Your task to perform on an android device: find photos in the google photos app Image 0: 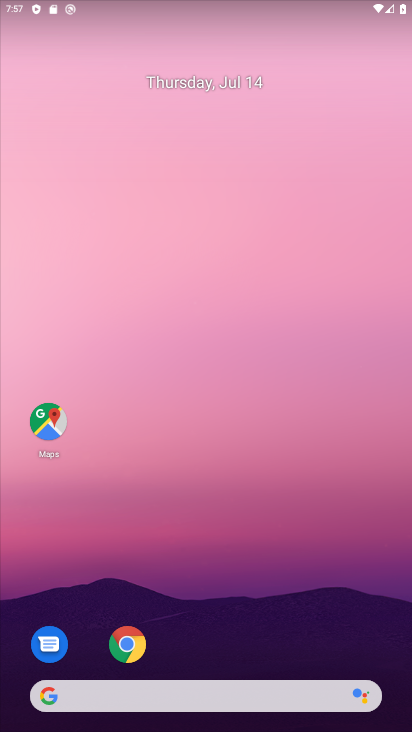
Step 0: click (258, 335)
Your task to perform on an android device: find photos in the google photos app Image 1: 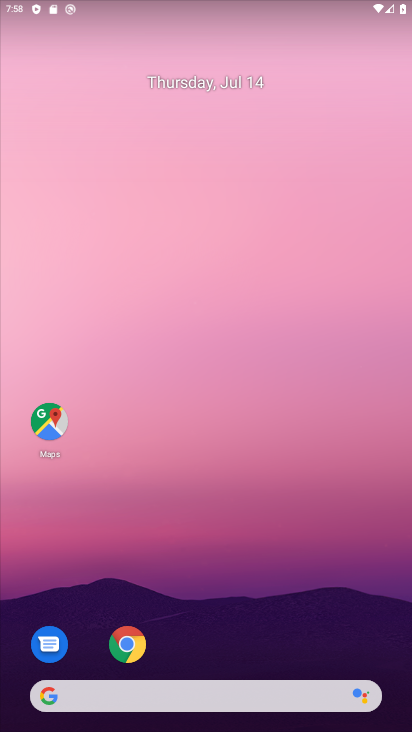
Step 1: drag from (198, 610) to (225, 251)
Your task to perform on an android device: find photos in the google photos app Image 2: 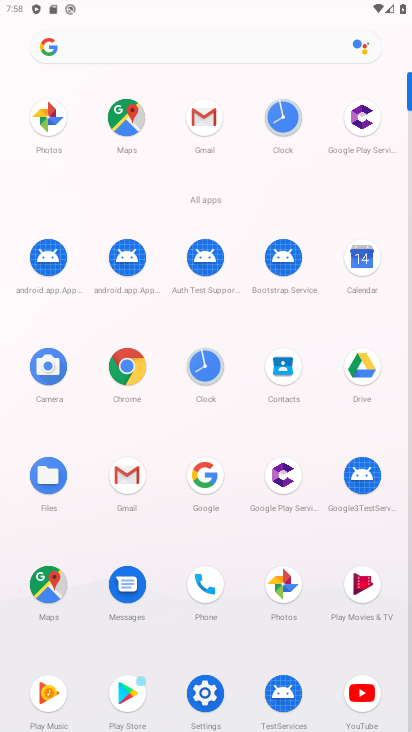
Step 2: click (284, 593)
Your task to perform on an android device: find photos in the google photos app Image 3: 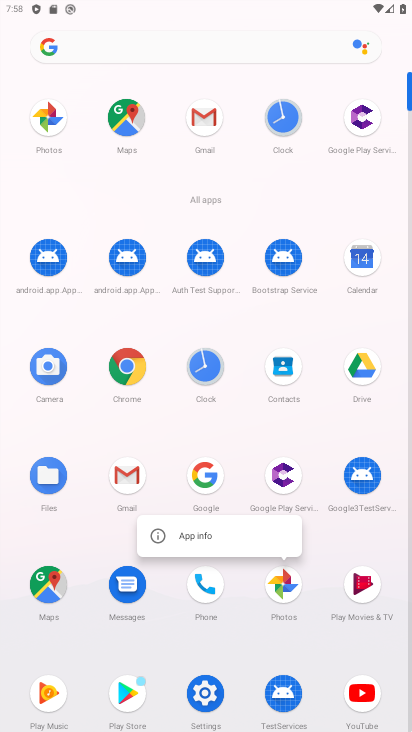
Step 3: click (193, 541)
Your task to perform on an android device: find photos in the google photos app Image 4: 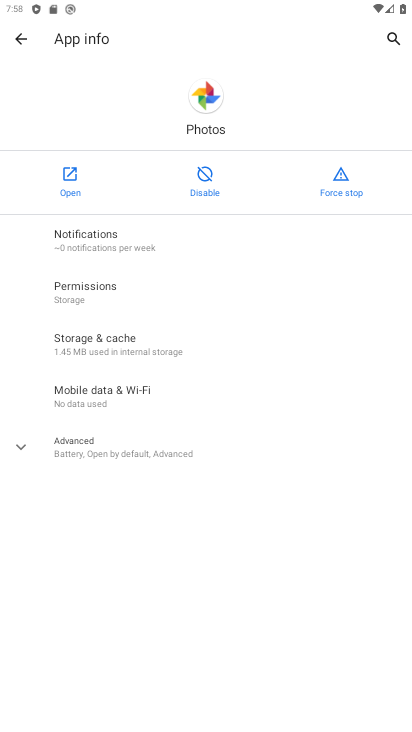
Step 4: click (68, 190)
Your task to perform on an android device: find photos in the google photos app Image 5: 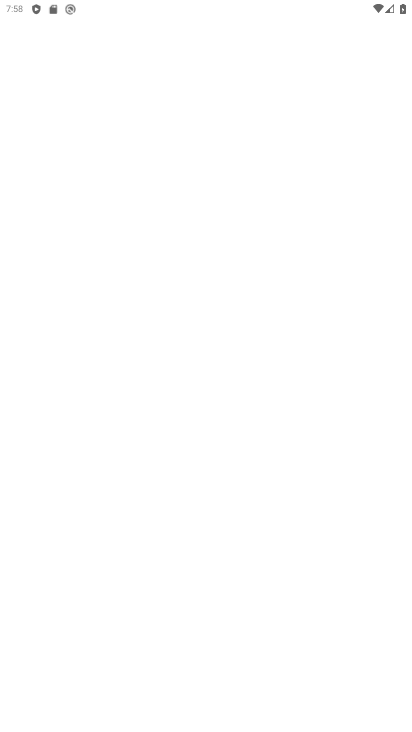
Step 5: drag from (243, 639) to (236, 404)
Your task to perform on an android device: find photos in the google photos app Image 6: 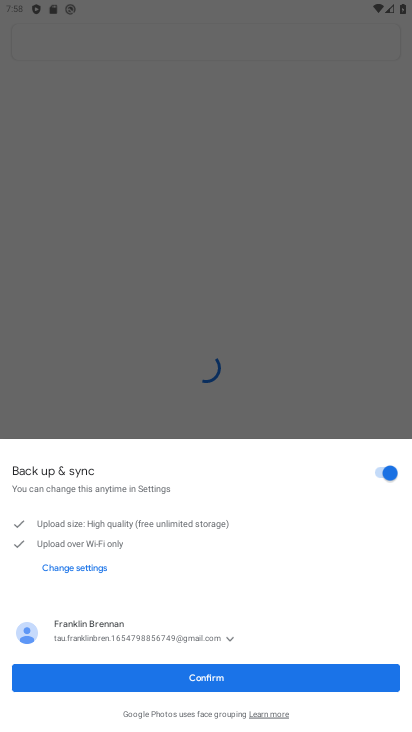
Step 6: click (202, 678)
Your task to perform on an android device: find photos in the google photos app Image 7: 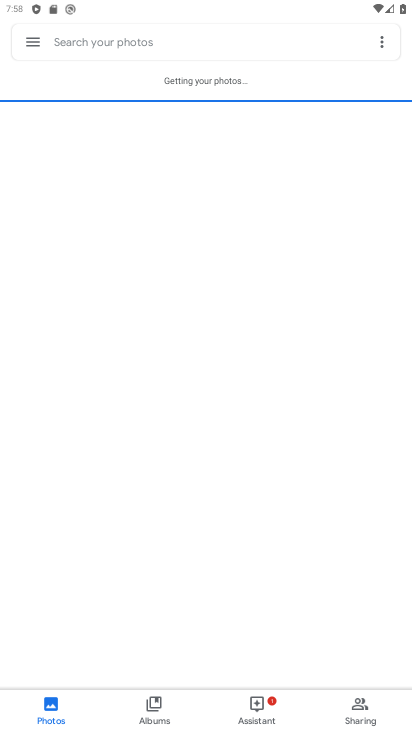
Step 7: drag from (207, 384) to (198, 156)
Your task to perform on an android device: find photos in the google photos app Image 8: 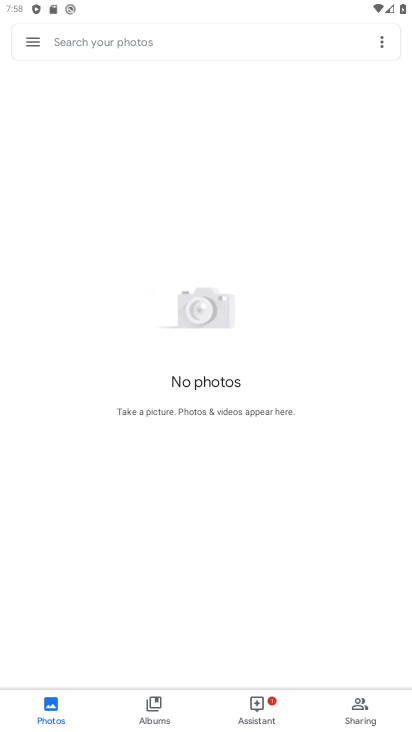
Step 8: click (32, 41)
Your task to perform on an android device: find photos in the google photos app Image 9: 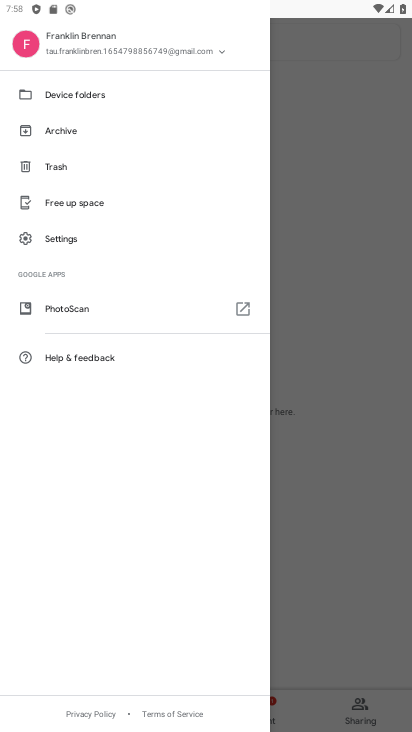
Step 9: click (93, 168)
Your task to perform on an android device: find photos in the google photos app Image 10: 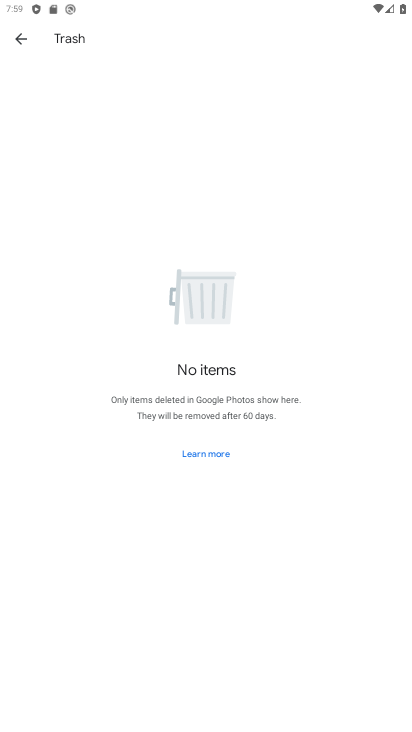
Step 10: task complete